Your task to perform on an android device: Turn on the flashlight Image 0: 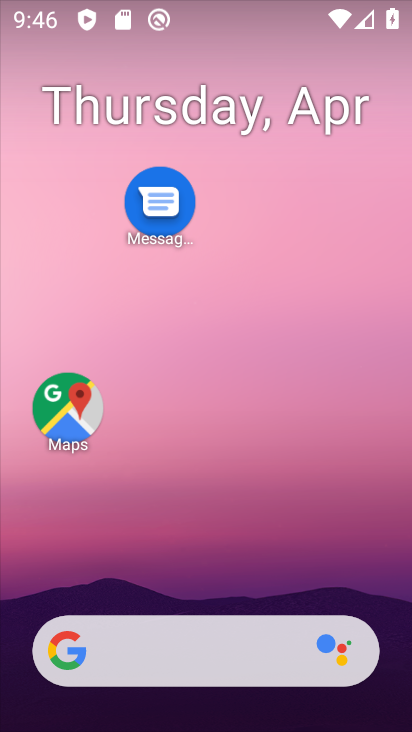
Step 0: drag from (184, 604) to (211, 88)
Your task to perform on an android device: Turn on the flashlight Image 1: 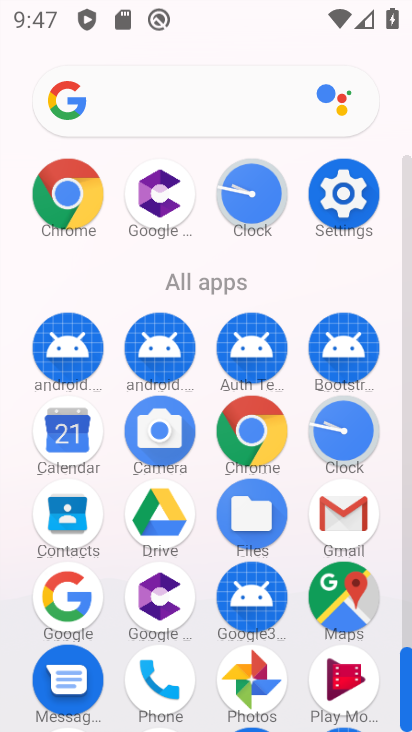
Step 1: click (357, 204)
Your task to perform on an android device: Turn on the flashlight Image 2: 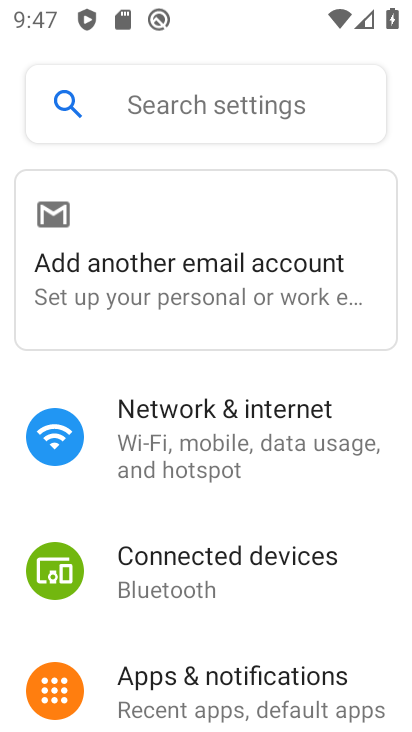
Step 2: task complete